Your task to perform on an android device: see tabs open on other devices in the chrome app Image 0: 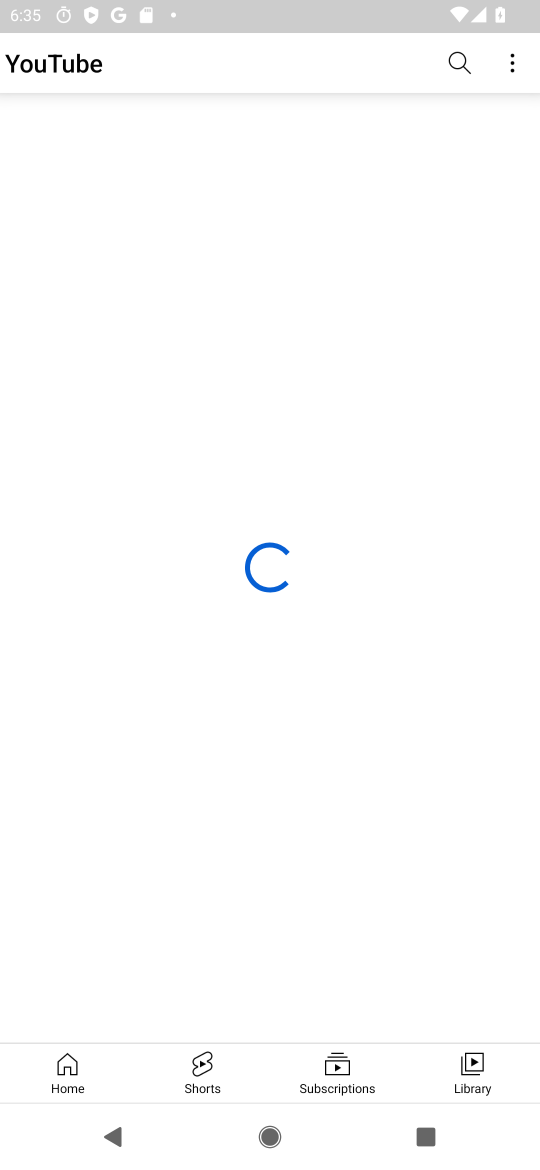
Step 0: press home button
Your task to perform on an android device: see tabs open on other devices in the chrome app Image 1: 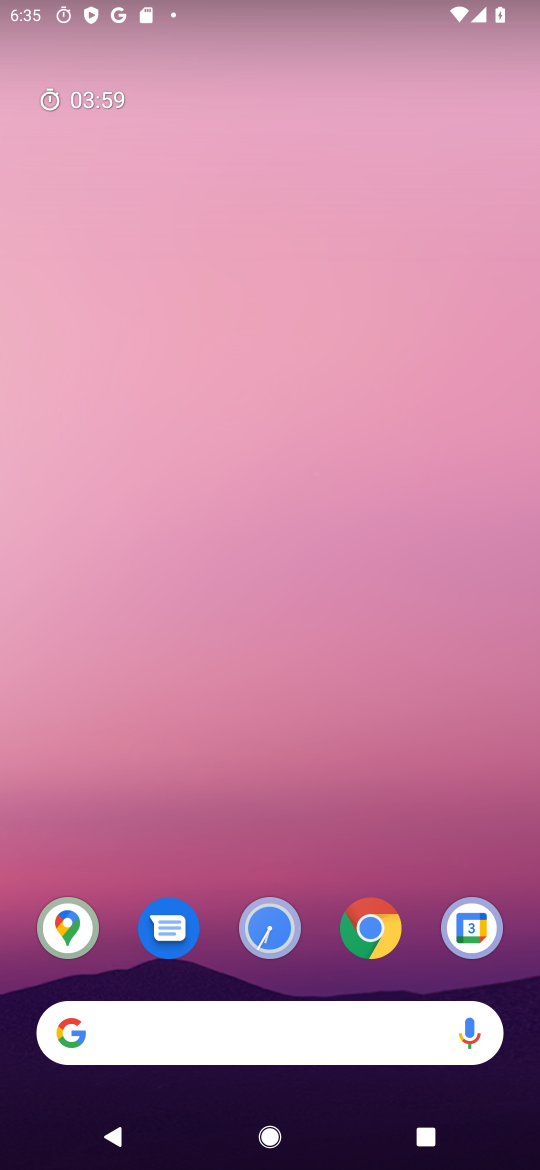
Step 1: drag from (317, 805) to (301, 132)
Your task to perform on an android device: see tabs open on other devices in the chrome app Image 2: 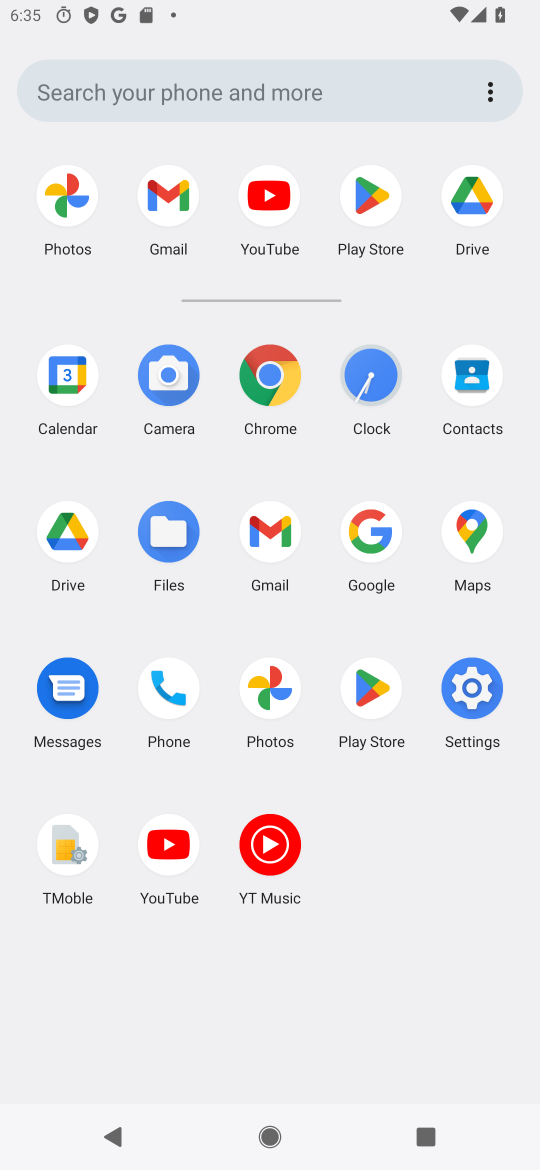
Step 2: click (274, 373)
Your task to perform on an android device: see tabs open on other devices in the chrome app Image 3: 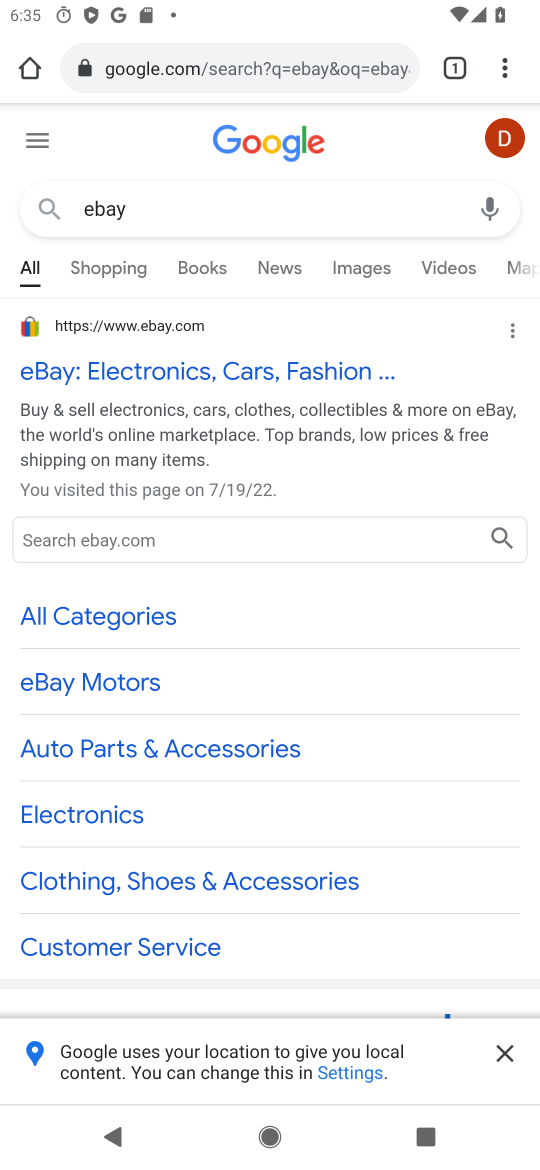
Step 3: click (501, 68)
Your task to perform on an android device: see tabs open on other devices in the chrome app Image 4: 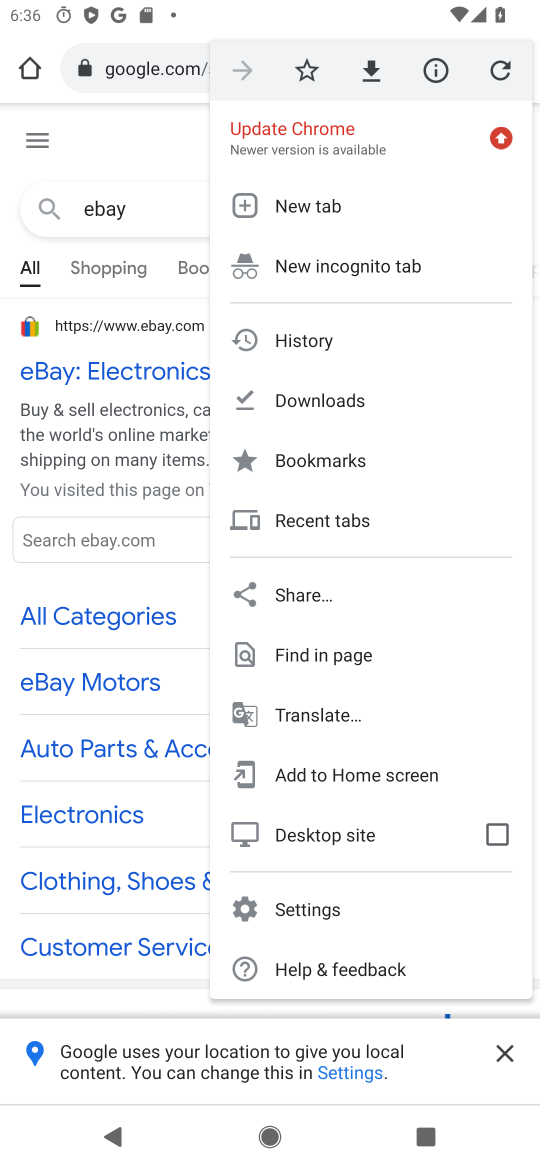
Step 4: click (347, 516)
Your task to perform on an android device: see tabs open on other devices in the chrome app Image 5: 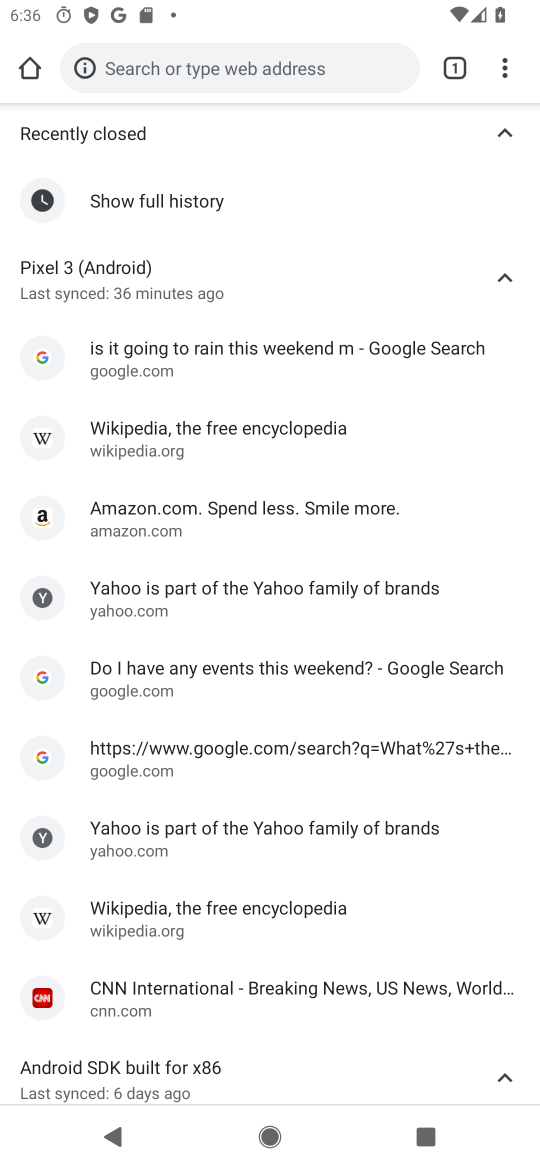
Step 5: click (451, 68)
Your task to perform on an android device: see tabs open on other devices in the chrome app Image 6: 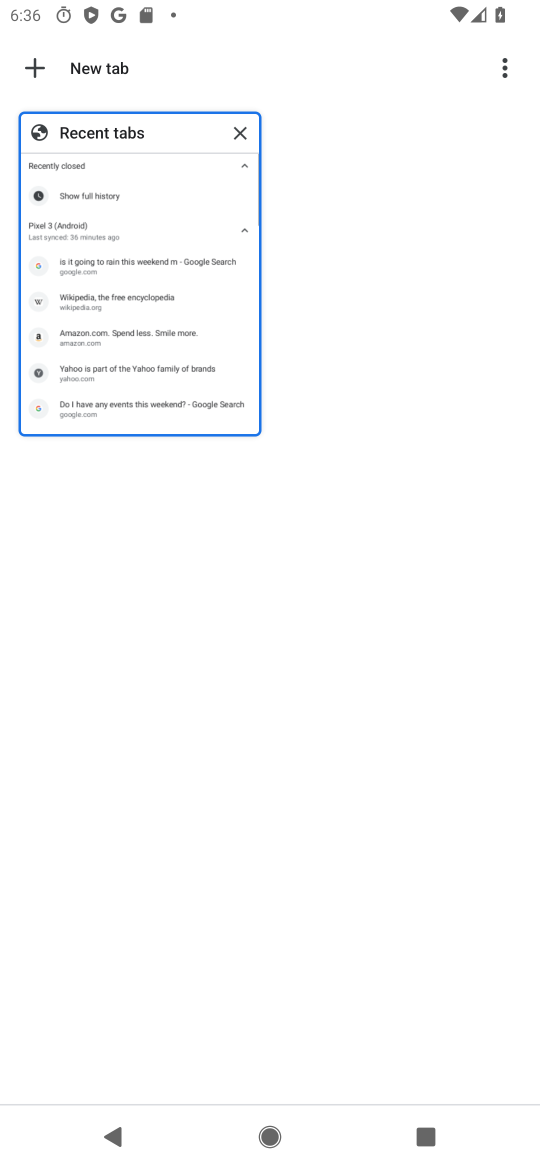
Step 6: task complete